Your task to perform on an android device: set the timer Image 0: 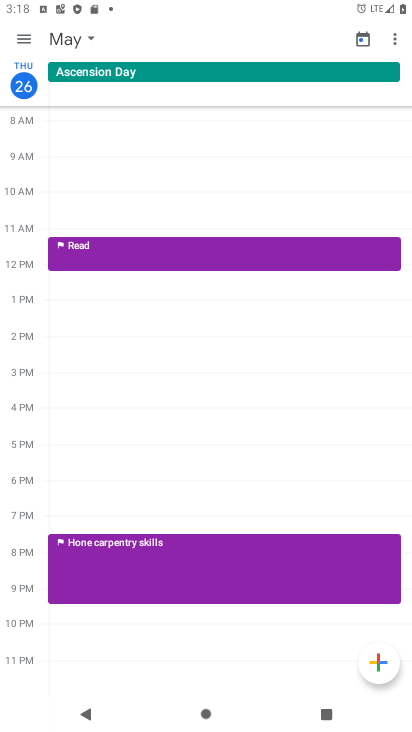
Step 0: press home button
Your task to perform on an android device: set the timer Image 1: 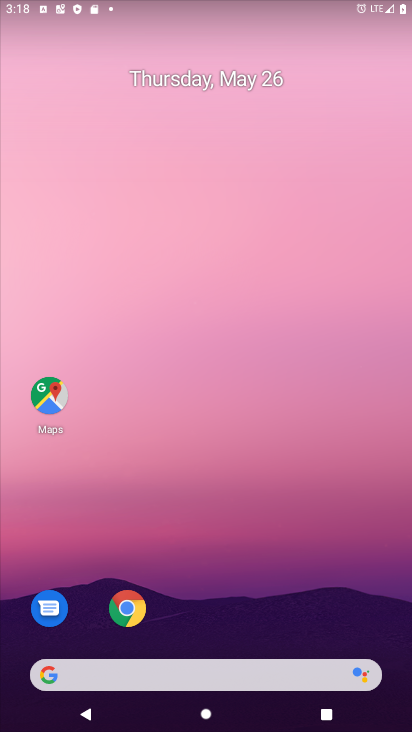
Step 1: drag from (358, 618) to (337, 67)
Your task to perform on an android device: set the timer Image 2: 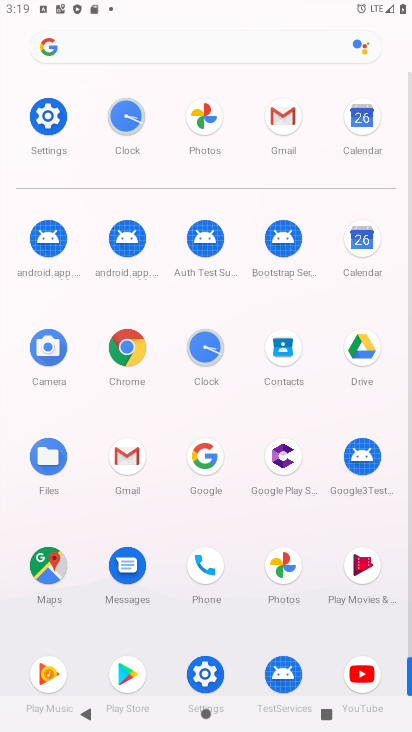
Step 2: click (202, 346)
Your task to perform on an android device: set the timer Image 3: 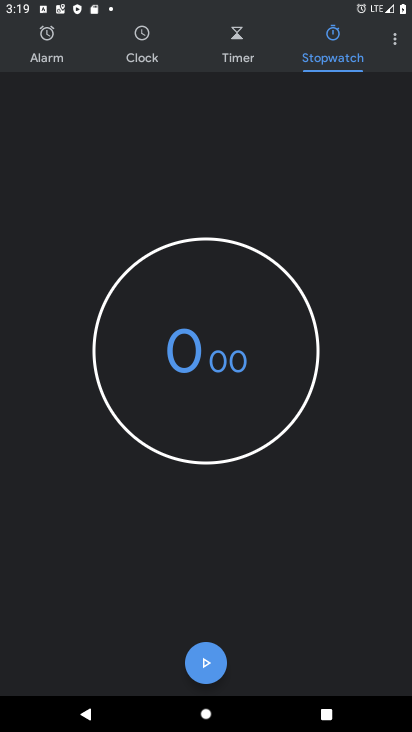
Step 3: click (237, 48)
Your task to perform on an android device: set the timer Image 4: 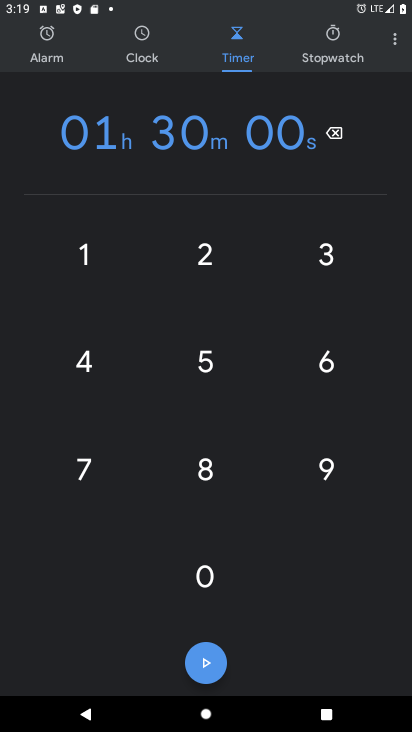
Step 4: task complete